Your task to perform on an android device: toggle wifi Image 0: 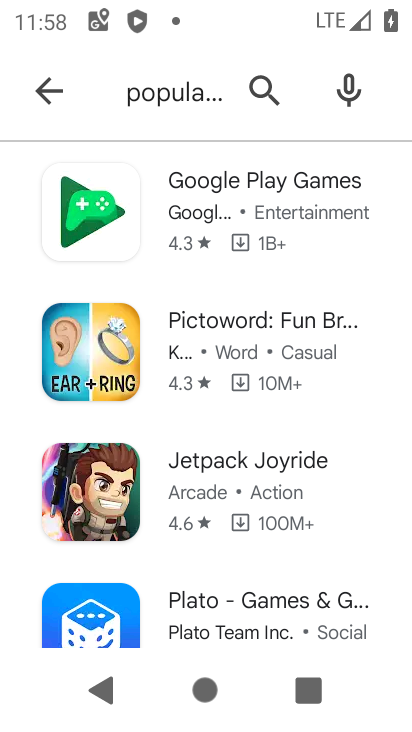
Step 0: press home button
Your task to perform on an android device: toggle wifi Image 1: 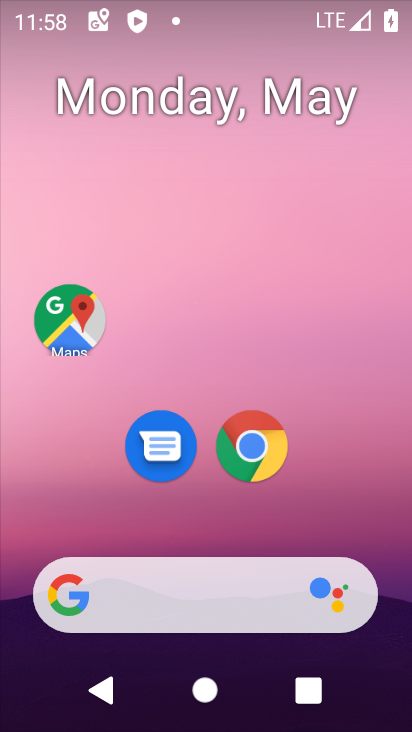
Step 1: drag from (358, 494) to (412, 94)
Your task to perform on an android device: toggle wifi Image 2: 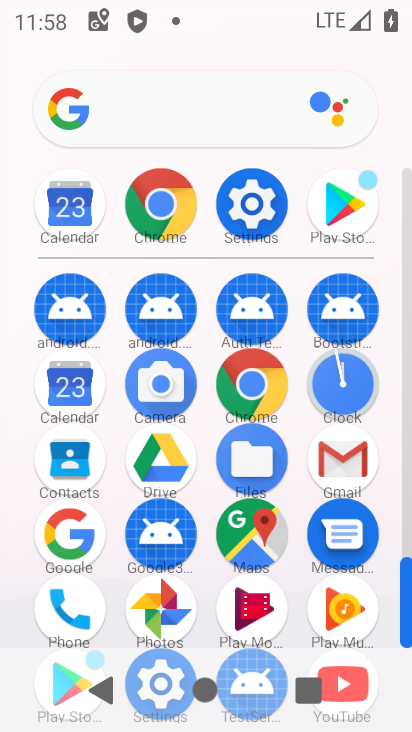
Step 2: click (245, 211)
Your task to perform on an android device: toggle wifi Image 3: 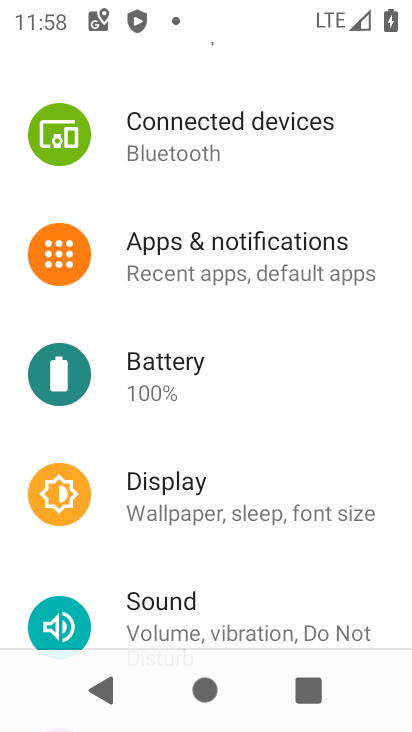
Step 3: drag from (245, 236) to (227, 601)
Your task to perform on an android device: toggle wifi Image 4: 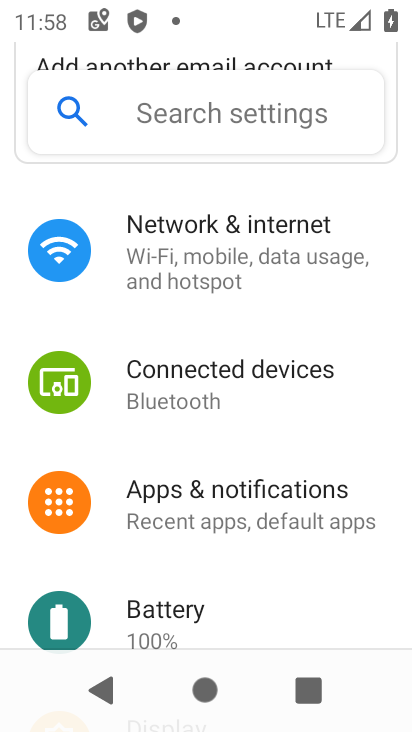
Step 4: drag from (263, 336) to (227, 604)
Your task to perform on an android device: toggle wifi Image 5: 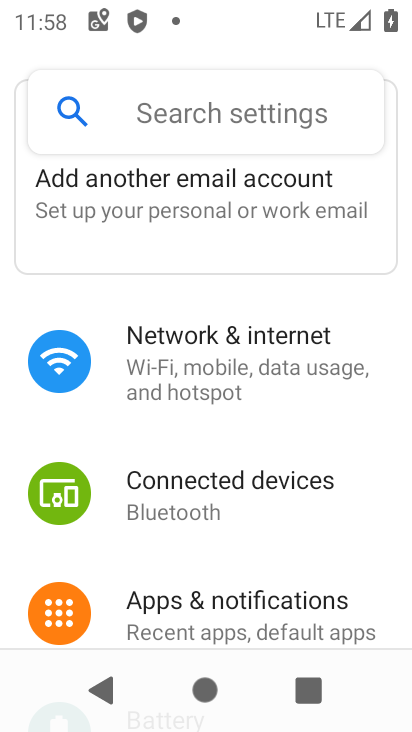
Step 5: click (226, 346)
Your task to perform on an android device: toggle wifi Image 6: 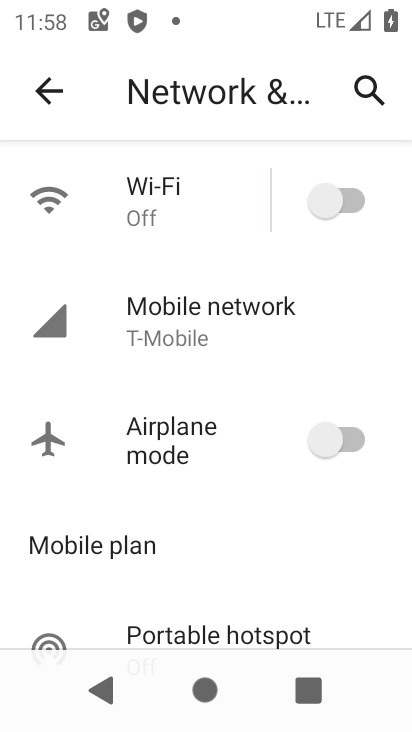
Step 6: click (350, 206)
Your task to perform on an android device: toggle wifi Image 7: 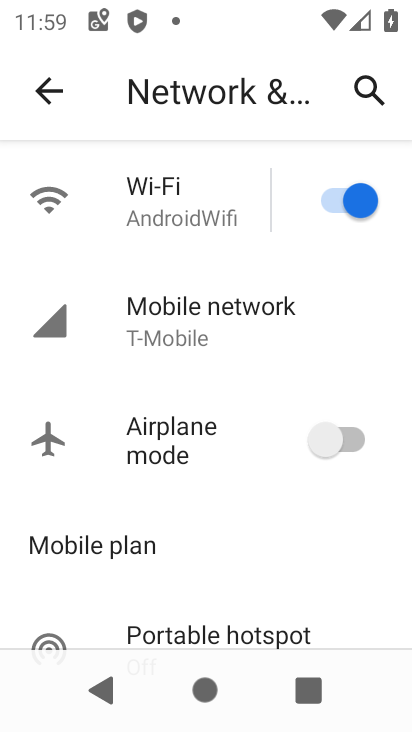
Step 7: task complete